Your task to perform on an android device: open a bookmark in the chrome app Image 0: 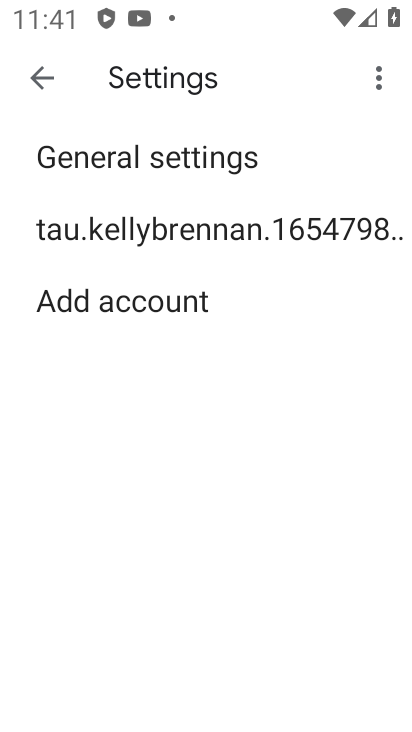
Step 0: press home button
Your task to perform on an android device: open a bookmark in the chrome app Image 1: 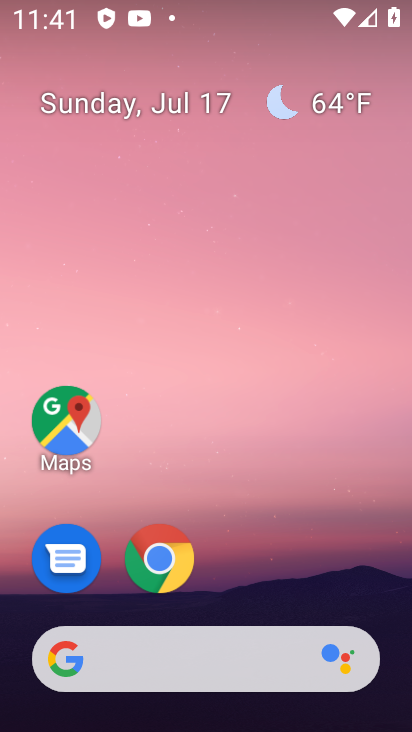
Step 1: drag from (357, 526) to (339, 73)
Your task to perform on an android device: open a bookmark in the chrome app Image 2: 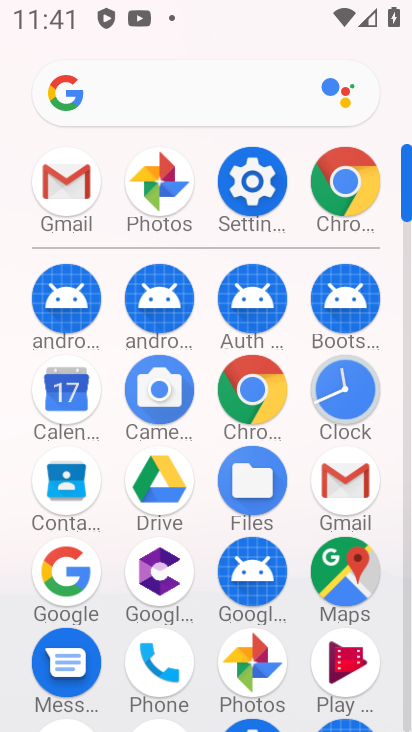
Step 2: click (264, 396)
Your task to perform on an android device: open a bookmark in the chrome app Image 3: 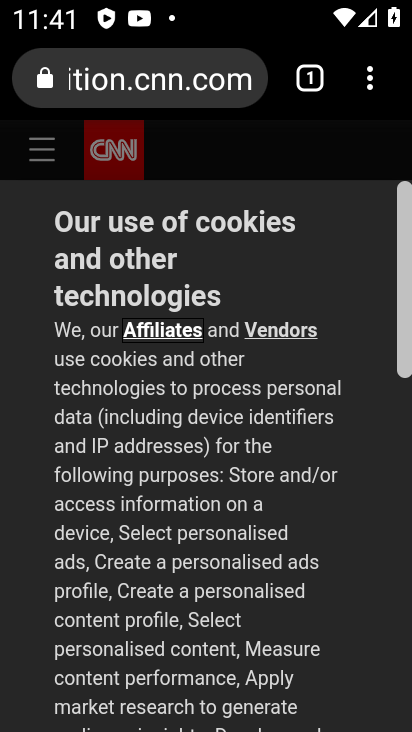
Step 3: click (367, 85)
Your task to perform on an android device: open a bookmark in the chrome app Image 4: 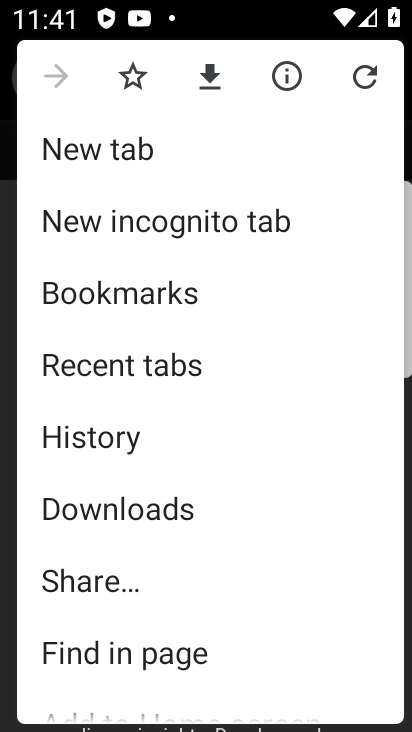
Step 4: drag from (306, 445) to (306, 366)
Your task to perform on an android device: open a bookmark in the chrome app Image 5: 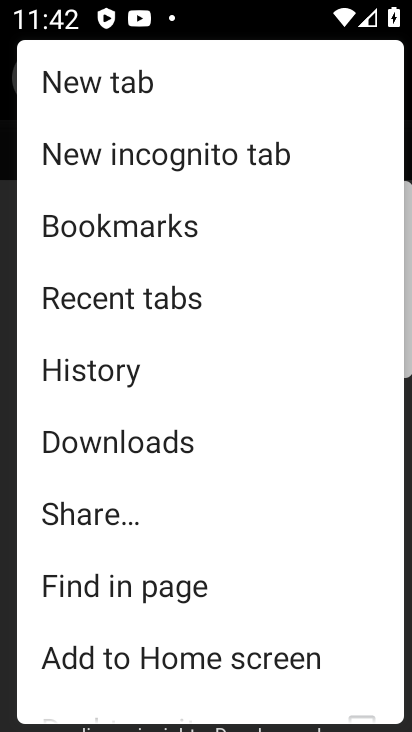
Step 5: drag from (317, 510) to (320, 417)
Your task to perform on an android device: open a bookmark in the chrome app Image 6: 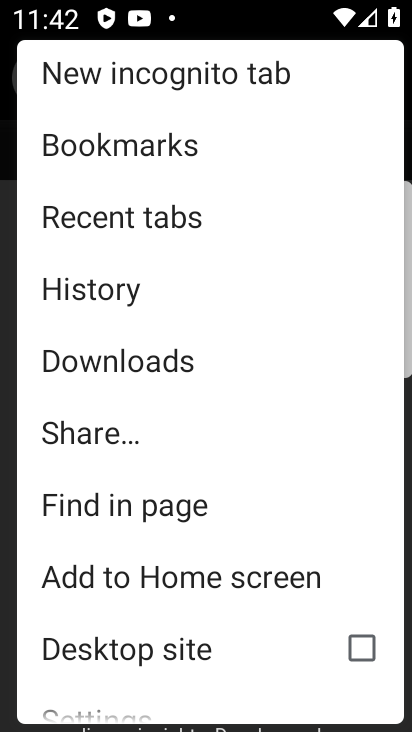
Step 6: drag from (290, 618) to (289, 432)
Your task to perform on an android device: open a bookmark in the chrome app Image 7: 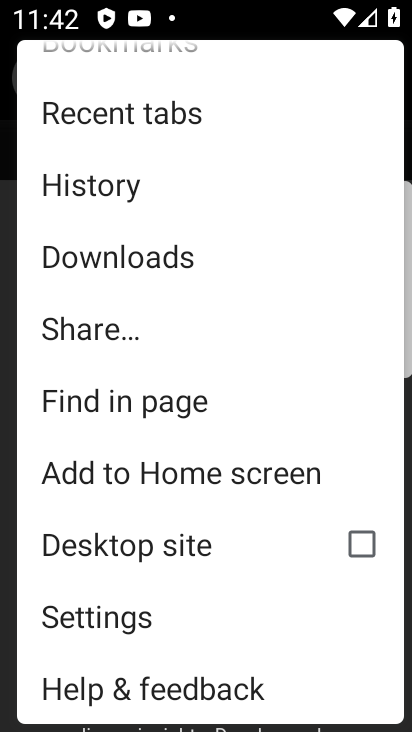
Step 7: drag from (286, 562) to (294, 446)
Your task to perform on an android device: open a bookmark in the chrome app Image 8: 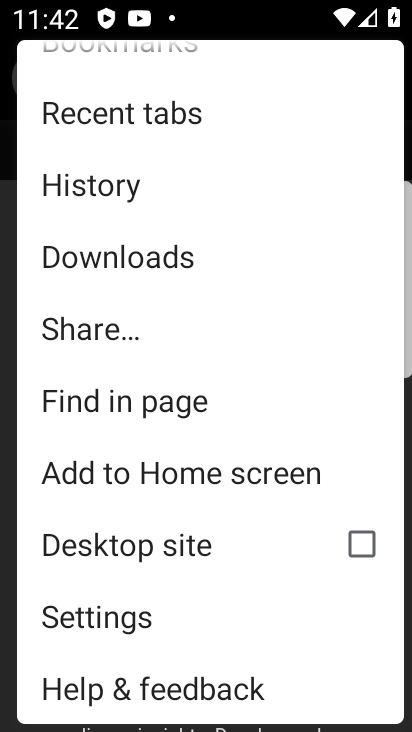
Step 8: drag from (290, 304) to (286, 426)
Your task to perform on an android device: open a bookmark in the chrome app Image 9: 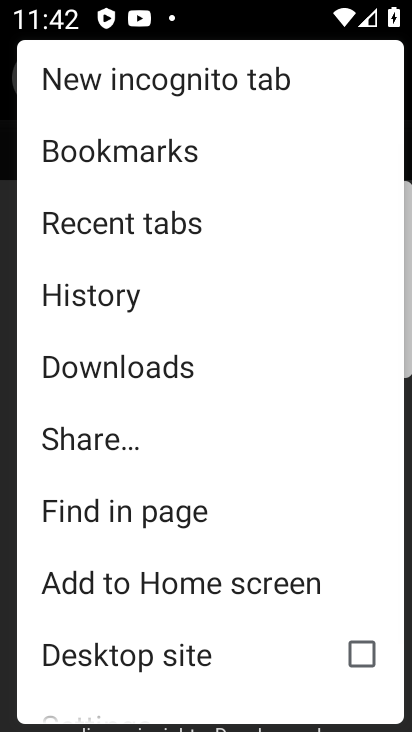
Step 9: drag from (286, 250) to (287, 493)
Your task to perform on an android device: open a bookmark in the chrome app Image 10: 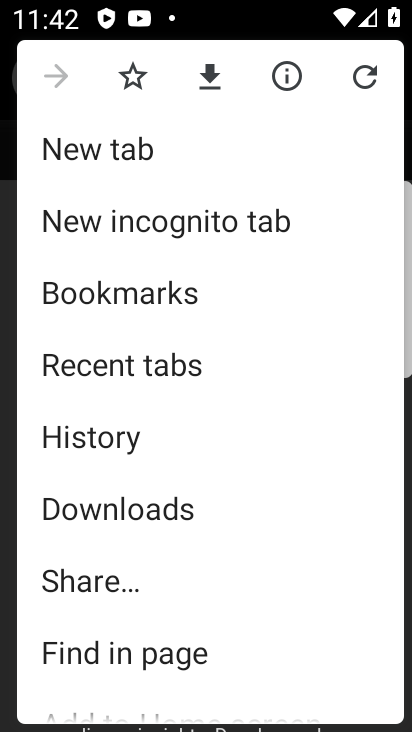
Step 10: click (203, 310)
Your task to perform on an android device: open a bookmark in the chrome app Image 11: 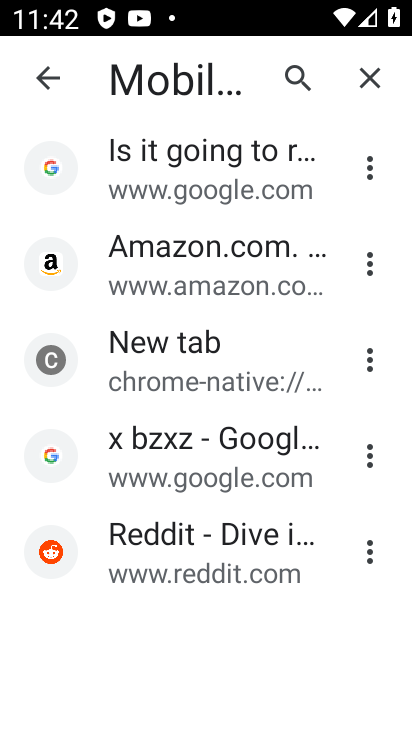
Step 11: click (211, 264)
Your task to perform on an android device: open a bookmark in the chrome app Image 12: 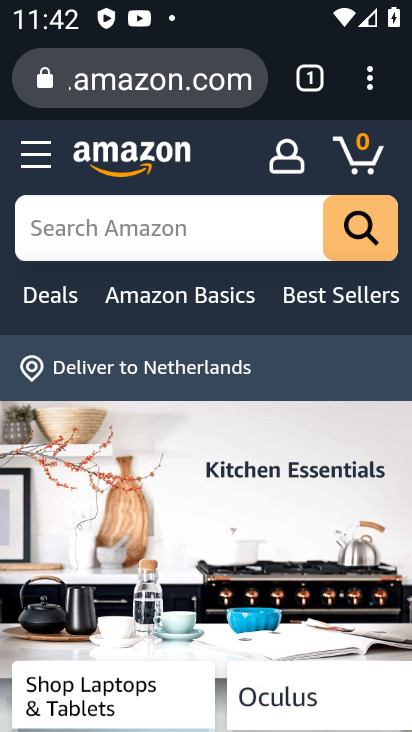
Step 12: task complete